Your task to perform on an android device: toggle notifications settings in the gmail app Image 0: 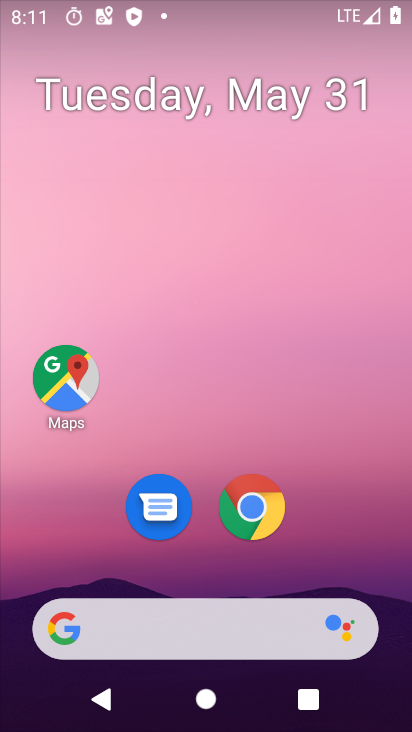
Step 0: press home button
Your task to perform on an android device: toggle notifications settings in the gmail app Image 1: 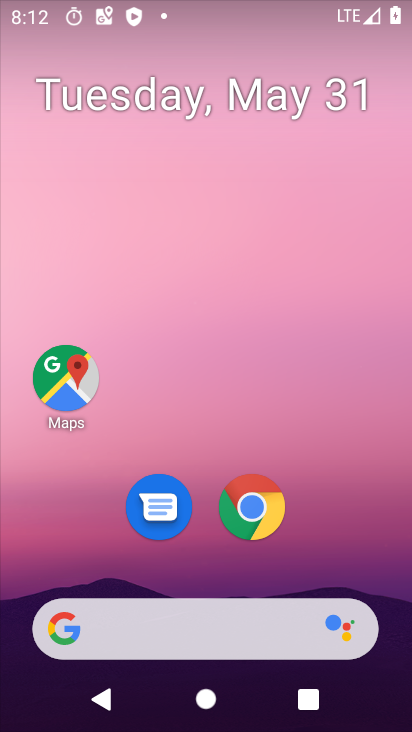
Step 1: drag from (73, 474) to (196, 91)
Your task to perform on an android device: toggle notifications settings in the gmail app Image 2: 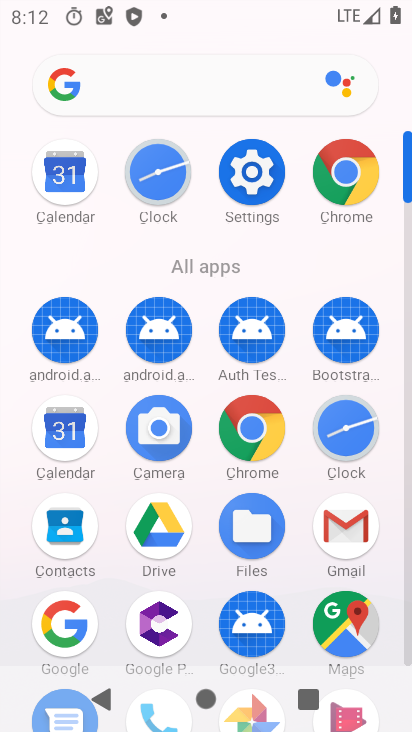
Step 2: click (358, 510)
Your task to perform on an android device: toggle notifications settings in the gmail app Image 3: 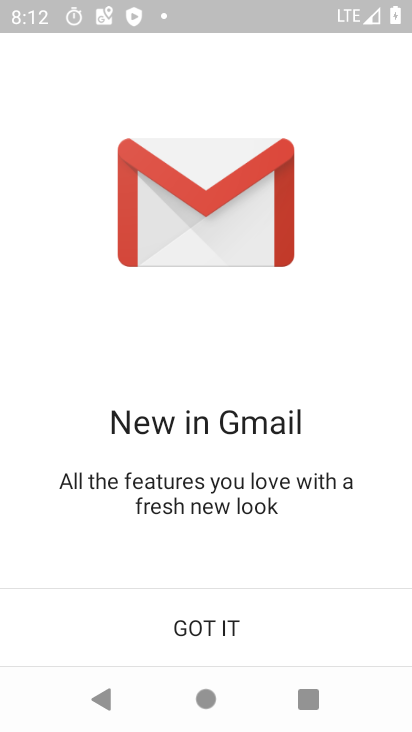
Step 3: click (234, 619)
Your task to perform on an android device: toggle notifications settings in the gmail app Image 4: 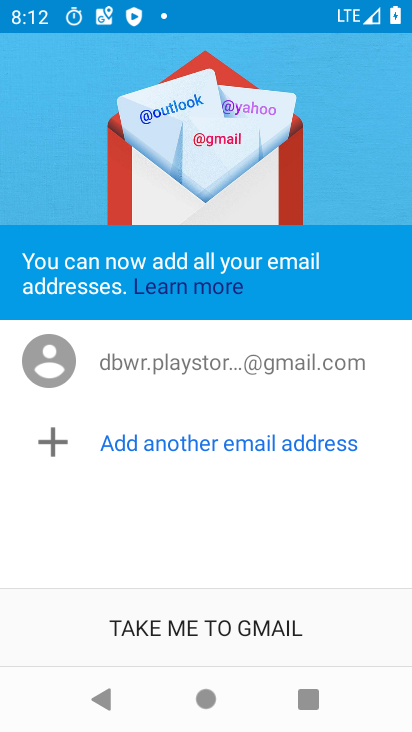
Step 4: click (232, 619)
Your task to perform on an android device: toggle notifications settings in the gmail app Image 5: 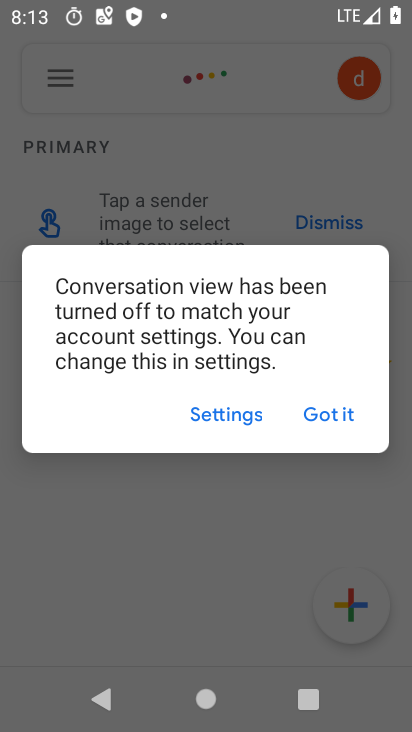
Step 5: click (313, 411)
Your task to perform on an android device: toggle notifications settings in the gmail app Image 6: 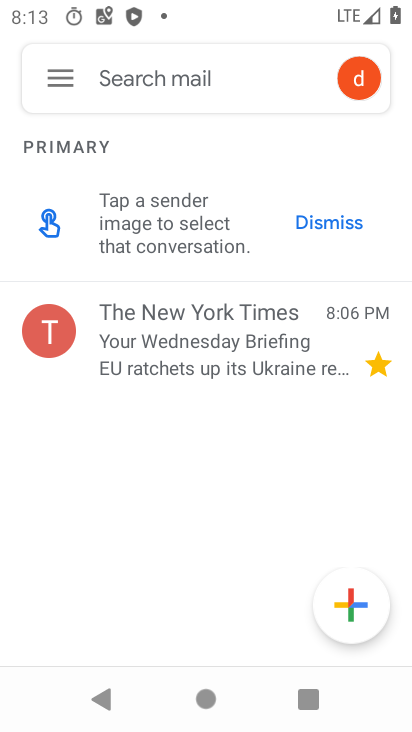
Step 6: click (68, 87)
Your task to perform on an android device: toggle notifications settings in the gmail app Image 7: 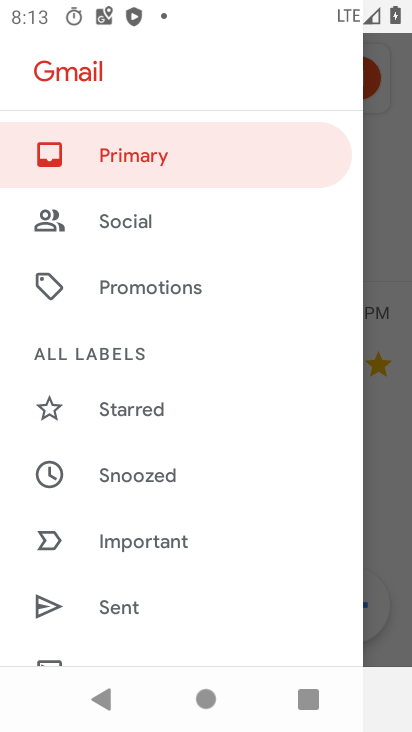
Step 7: drag from (8, 574) to (221, 109)
Your task to perform on an android device: toggle notifications settings in the gmail app Image 8: 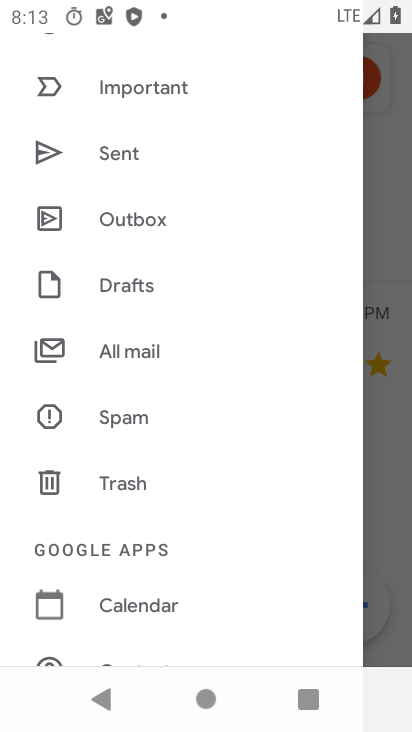
Step 8: drag from (0, 557) to (223, 78)
Your task to perform on an android device: toggle notifications settings in the gmail app Image 9: 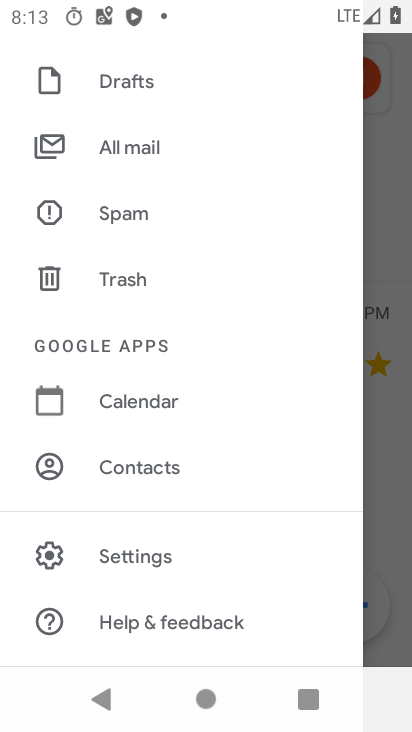
Step 9: click (366, 450)
Your task to perform on an android device: toggle notifications settings in the gmail app Image 10: 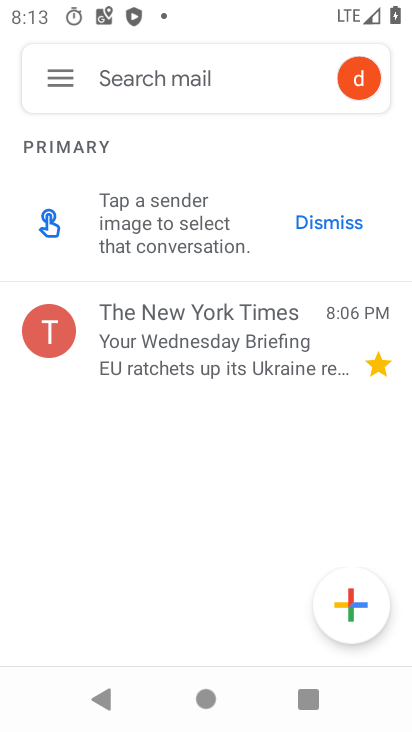
Step 10: click (51, 83)
Your task to perform on an android device: toggle notifications settings in the gmail app Image 11: 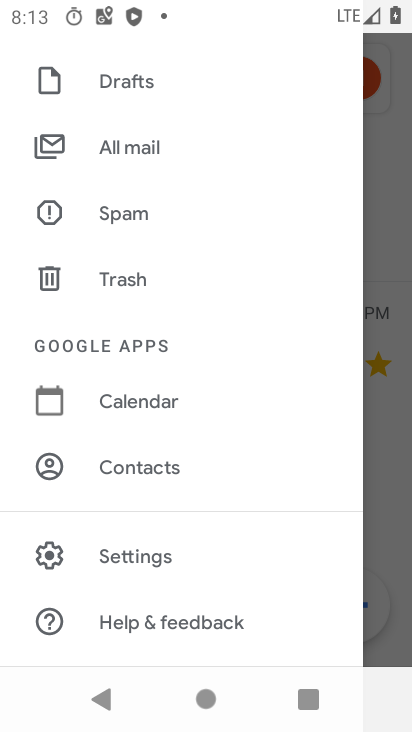
Step 11: click (44, 566)
Your task to perform on an android device: toggle notifications settings in the gmail app Image 12: 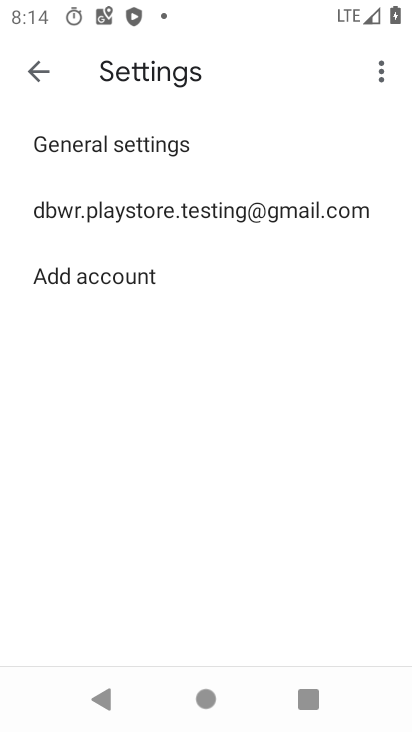
Step 12: click (325, 210)
Your task to perform on an android device: toggle notifications settings in the gmail app Image 13: 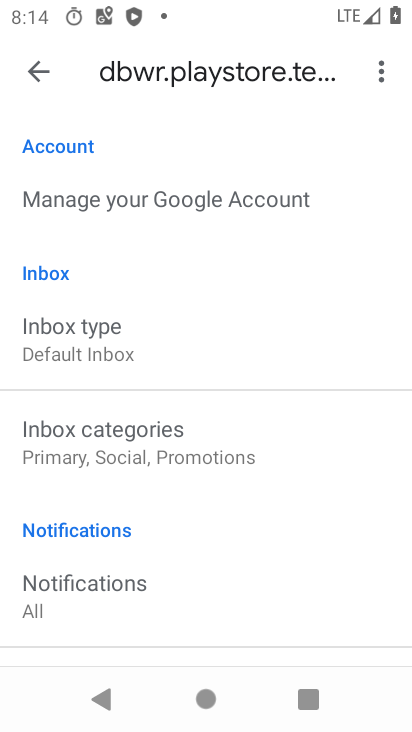
Step 13: drag from (11, 552) to (217, 63)
Your task to perform on an android device: toggle notifications settings in the gmail app Image 14: 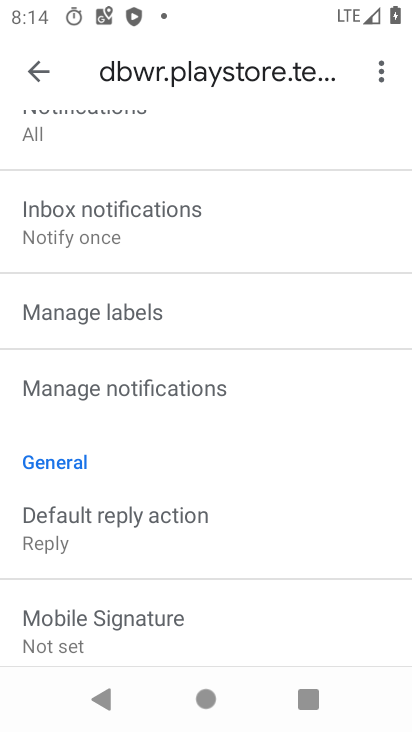
Step 14: drag from (32, 509) to (174, 262)
Your task to perform on an android device: toggle notifications settings in the gmail app Image 15: 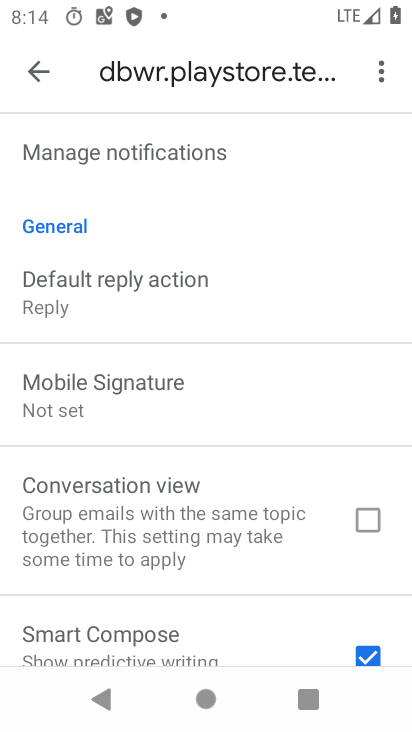
Step 15: click (162, 158)
Your task to perform on an android device: toggle notifications settings in the gmail app Image 16: 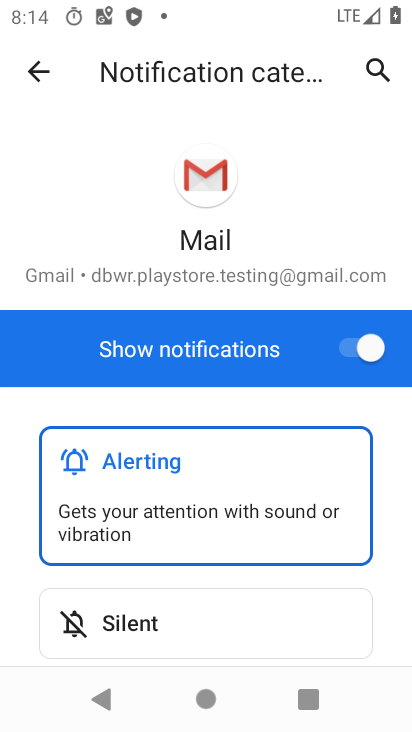
Step 16: click (371, 350)
Your task to perform on an android device: toggle notifications settings in the gmail app Image 17: 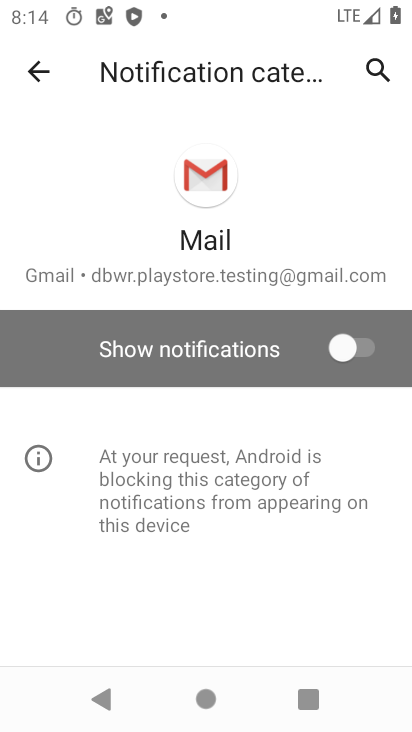
Step 17: task complete